Your task to perform on an android device: change timer sound Image 0: 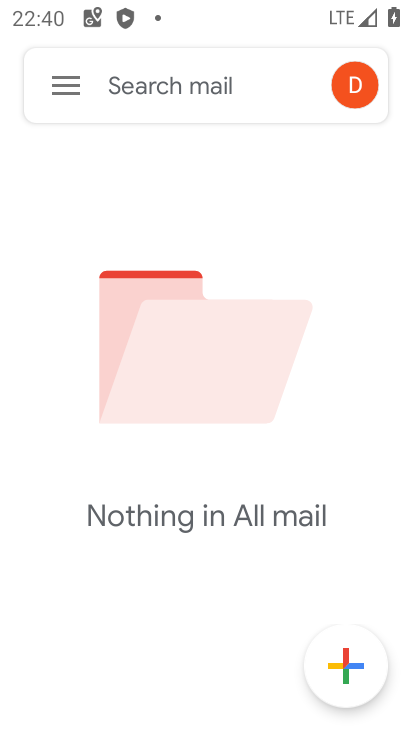
Step 0: press home button
Your task to perform on an android device: change timer sound Image 1: 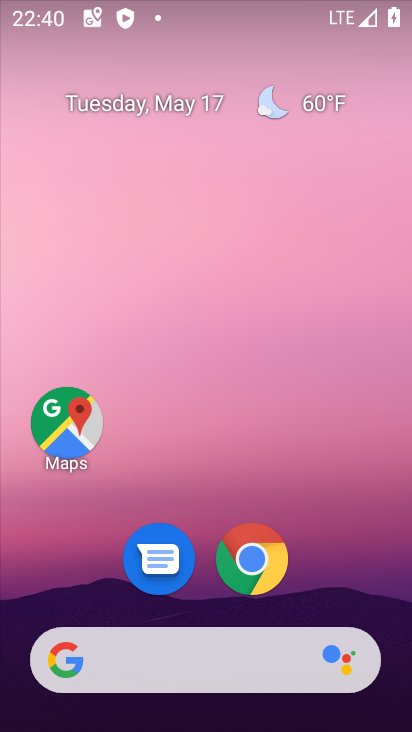
Step 1: drag from (369, 555) to (285, 132)
Your task to perform on an android device: change timer sound Image 2: 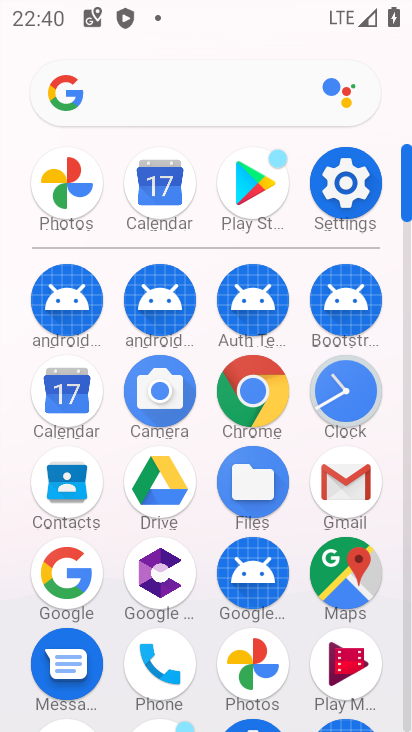
Step 2: click (329, 175)
Your task to perform on an android device: change timer sound Image 3: 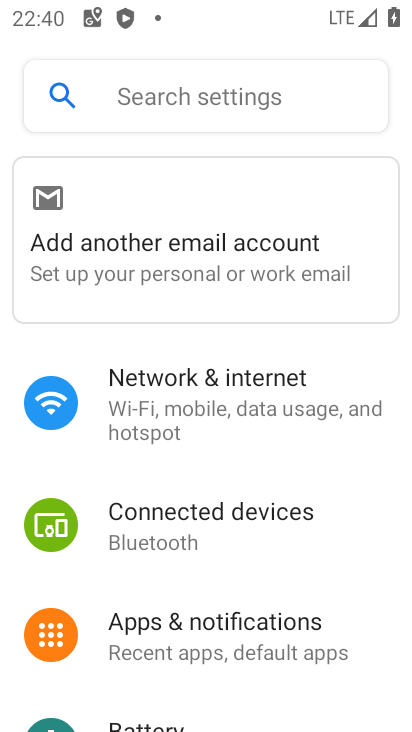
Step 3: drag from (256, 650) to (267, 247)
Your task to perform on an android device: change timer sound Image 4: 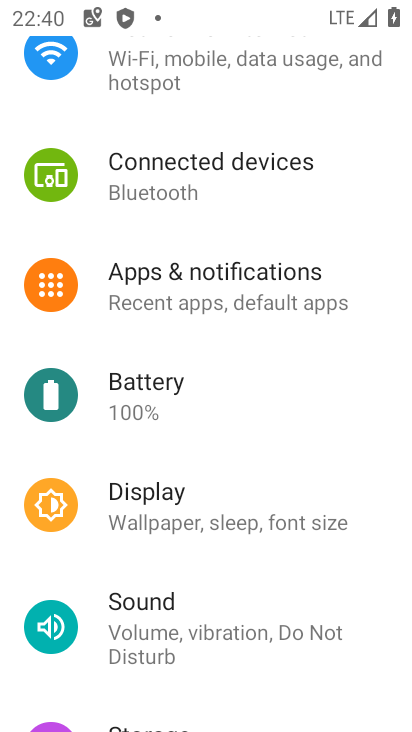
Step 4: click (267, 247)
Your task to perform on an android device: change timer sound Image 5: 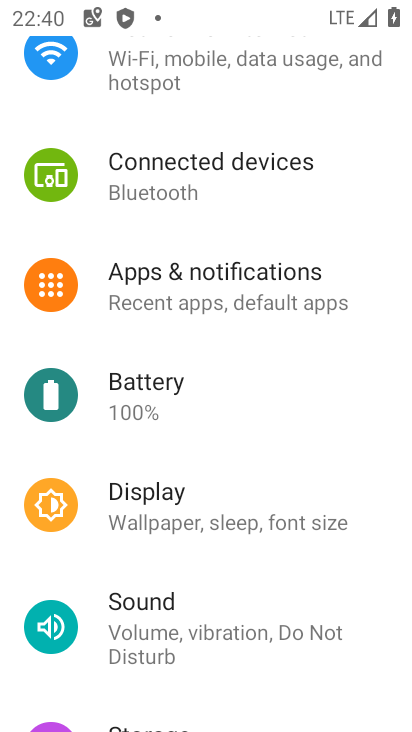
Step 5: click (268, 247)
Your task to perform on an android device: change timer sound Image 6: 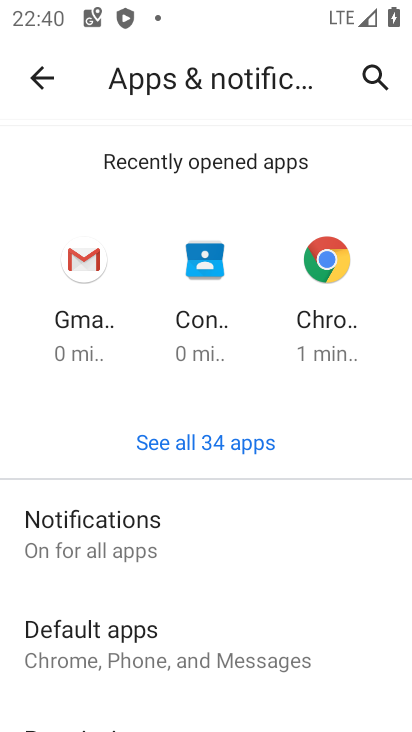
Step 6: click (48, 73)
Your task to perform on an android device: change timer sound Image 7: 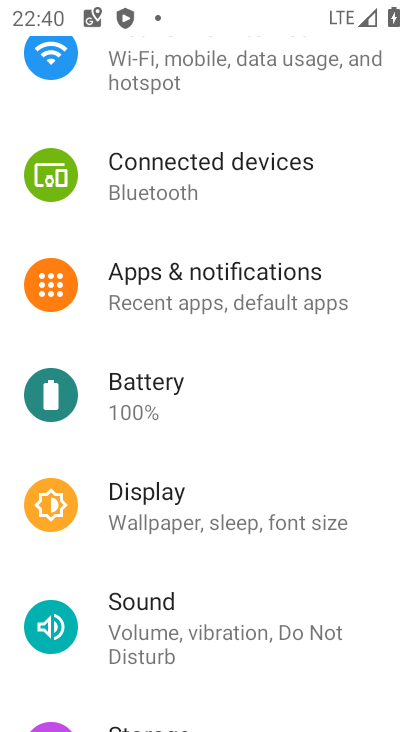
Step 7: press home button
Your task to perform on an android device: change timer sound Image 8: 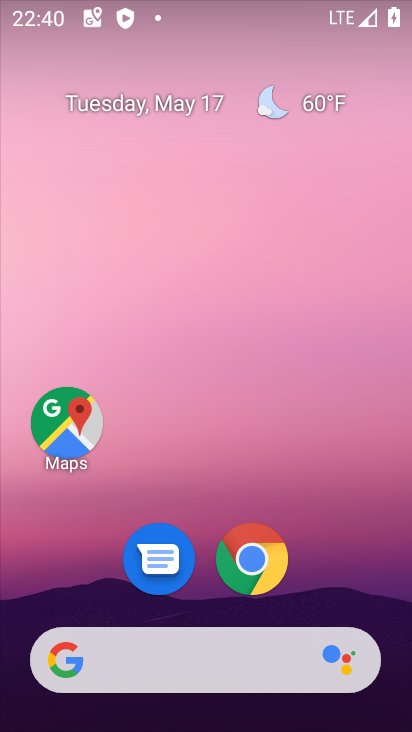
Step 8: drag from (311, 450) to (298, 102)
Your task to perform on an android device: change timer sound Image 9: 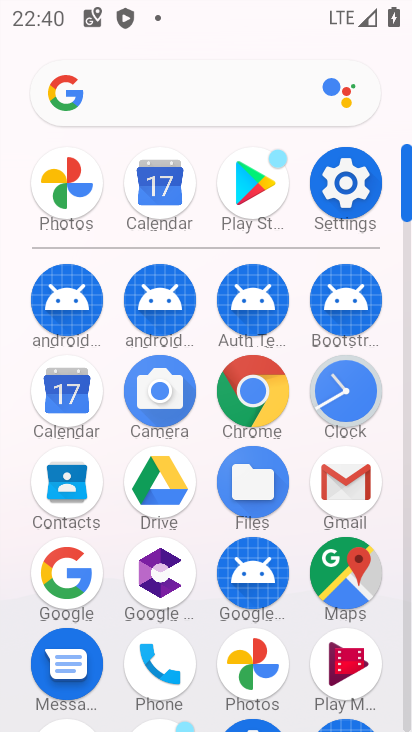
Step 9: click (348, 402)
Your task to perform on an android device: change timer sound Image 10: 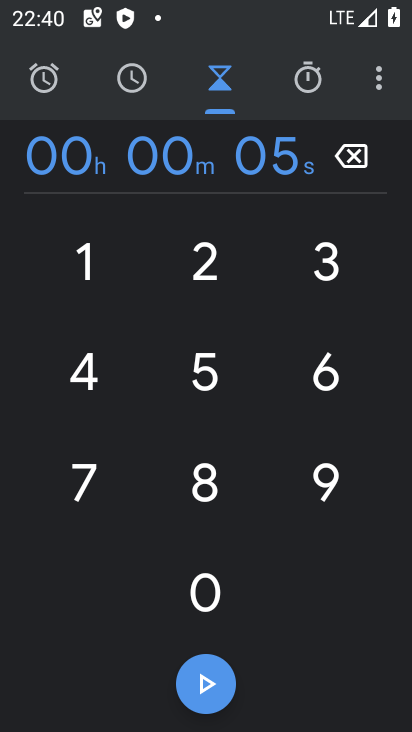
Step 10: click (379, 80)
Your task to perform on an android device: change timer sound Image 11: 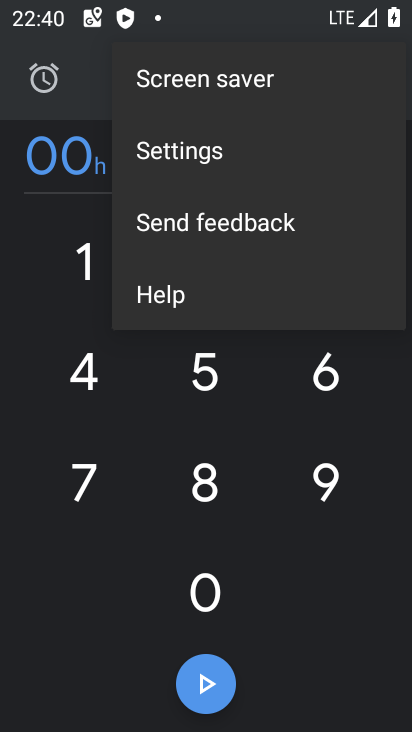
Step 11: click (183, 160)
Your task to perform on an android device: change timer sound Image 12: 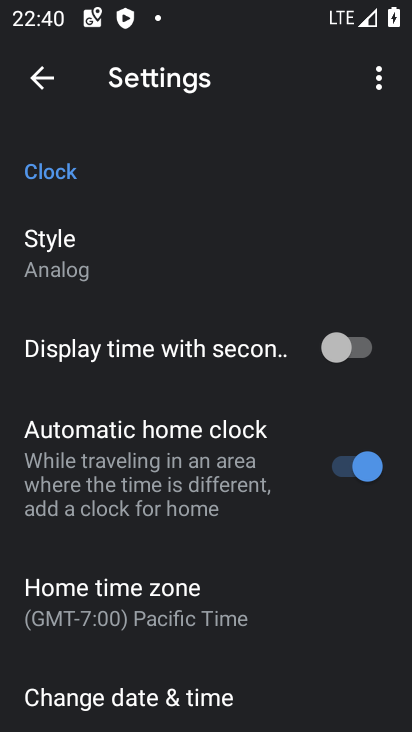
Step 12: drag from (263, 640) to (261, 169)
Your task to perform on an android device: change timer sound Image 13: 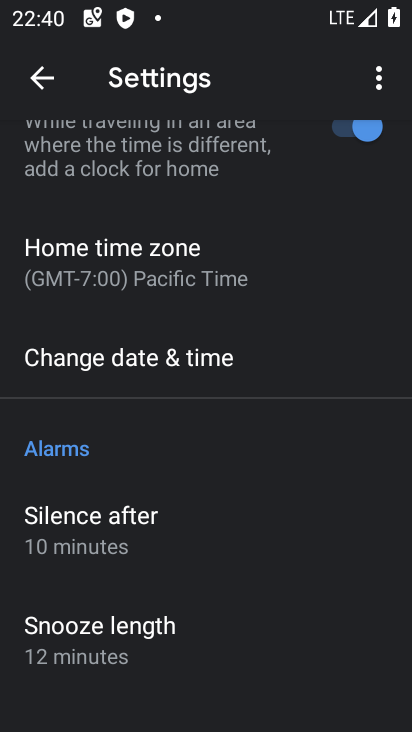
Step 13: drag from (238, 633) to (242, 184)
Your task to perform on an android device: change timer sound Image 14: 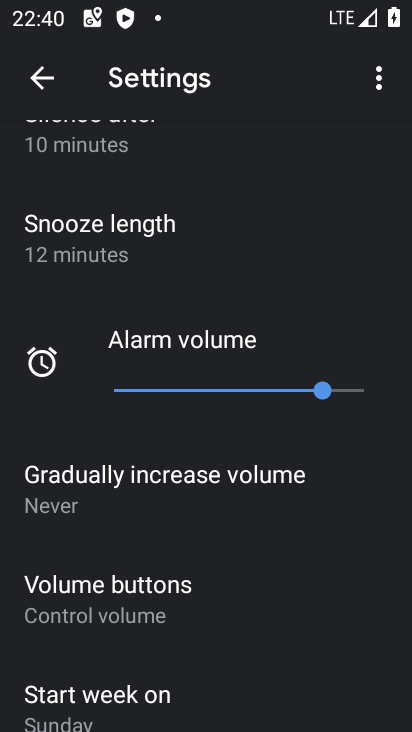
Step 14: drag from (194, 141) to (238, 105)
Your task to perform on an android device: change timer sound Image 15: 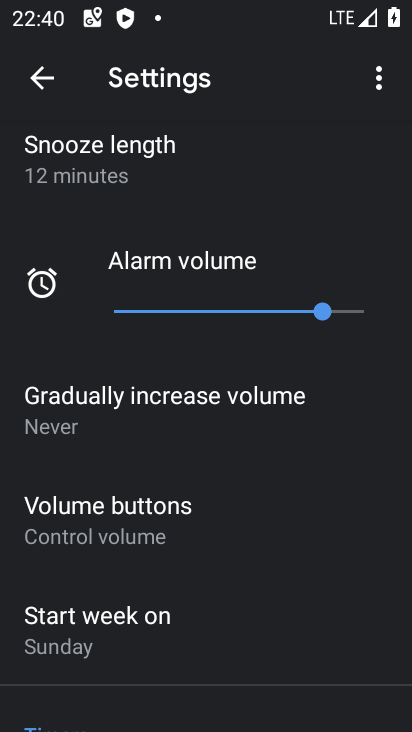
Step 15: drag from (269, 606) to (255, 97)
Your task to perform on an android device: change timer sound Image 16: 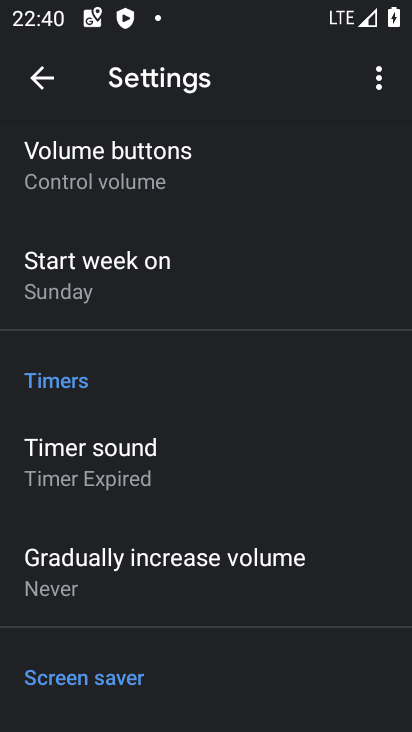
Step 16: click (90, 448)
Your task to perform on an android device: change timer sound Image 17: 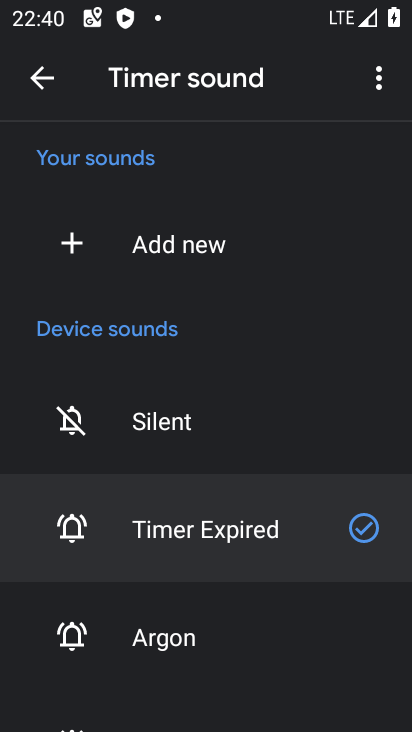
Step 17: click (179, 636)
Your task to perform on an android device: change timer sound Image 18: 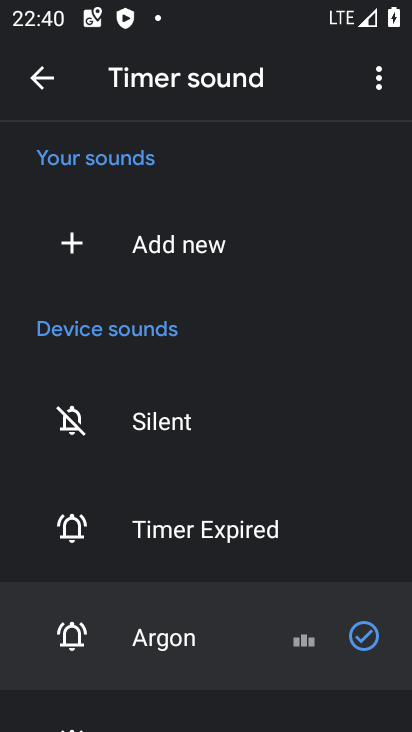
Step 18: task complete